Your task to perform on an android device: open wifi settings Image 0: 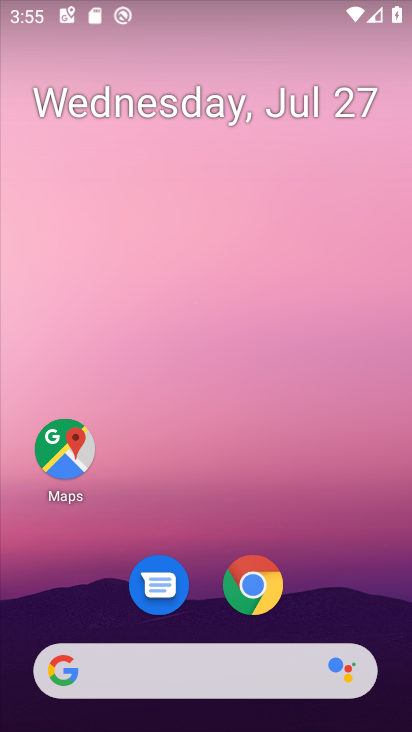
Step 0: drag from (361, 576) to (380, 34)
Your task to perform on an android device: open wifi settings Image 1: 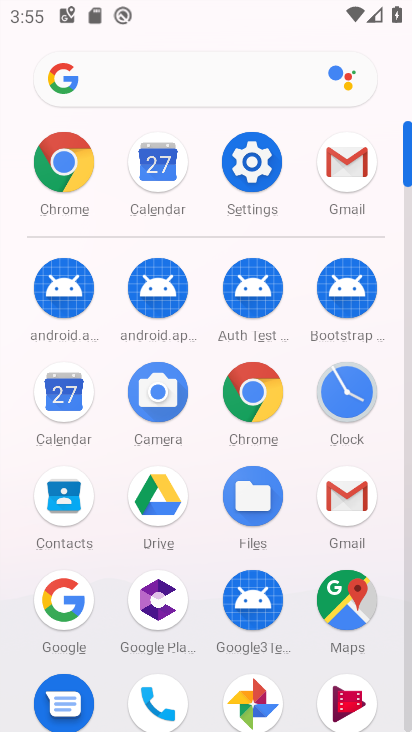
Step 1: click (250, 147)
Your task to perform on an android device: open wifi settings Image 2: 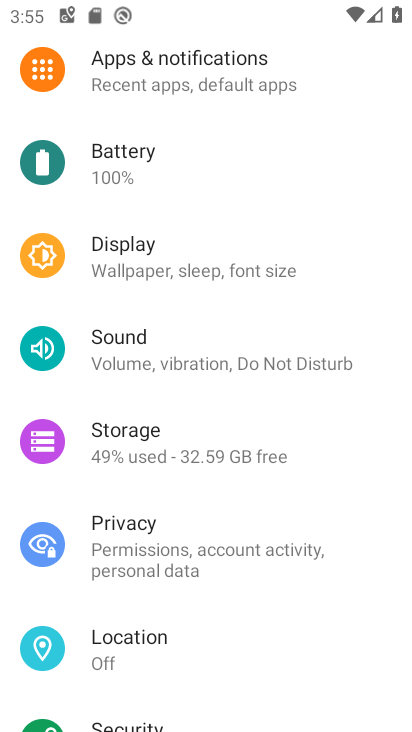
Step 2: drag from (254, 212) to (321, 606)
Your task to perform on an android device: open wifi settings Image 3: 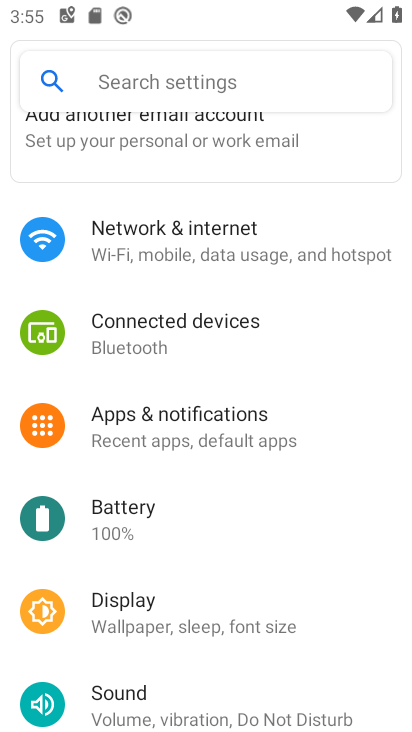
Step 3: click (250, 242)
Your task to perform on an android device: open wifi settings Image 4: 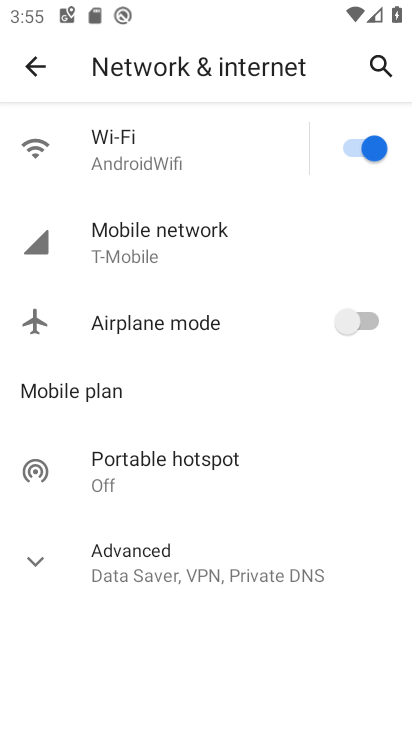
Step 4: task complete